Your task to perform on an android device: star an email in the gmail app Image 0: 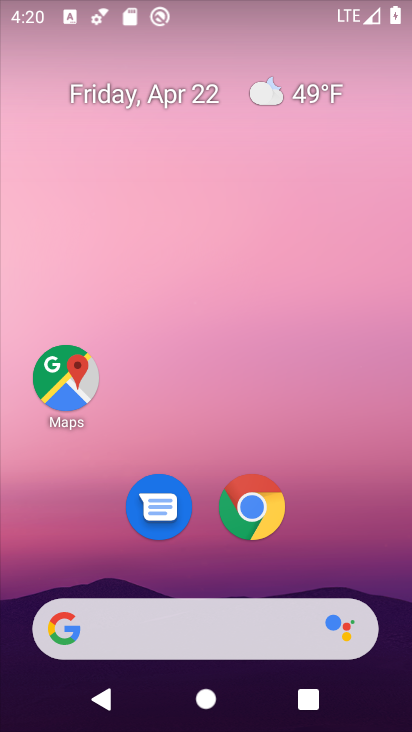
Step 0: drag from (385, 578) to (309, 10)
Your task to perform on an android device: star an email in the gmail app Image 1: 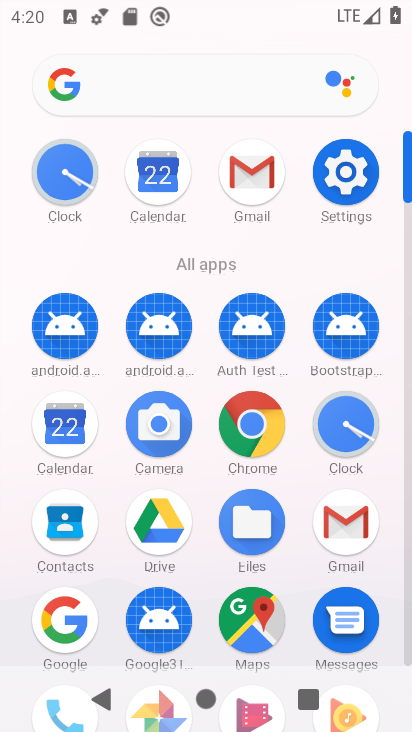
Step 1: click (408, 653)
Your task to perform on an android device: star an email in the gmail app Image 2: 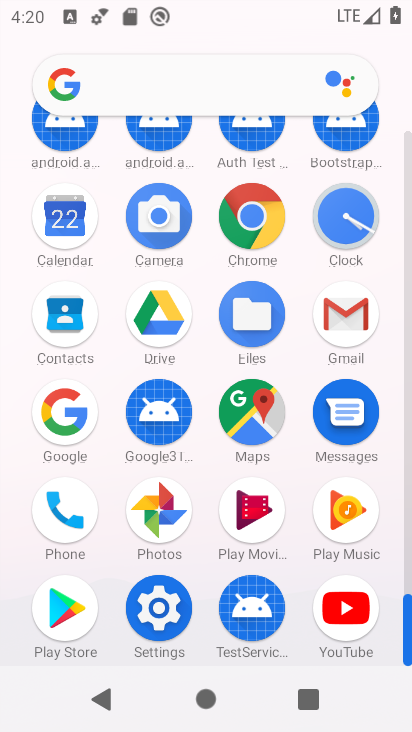
Step 2: click (343, 307)
Your task to perform on an android device: star an email in the gmail app Image 3: 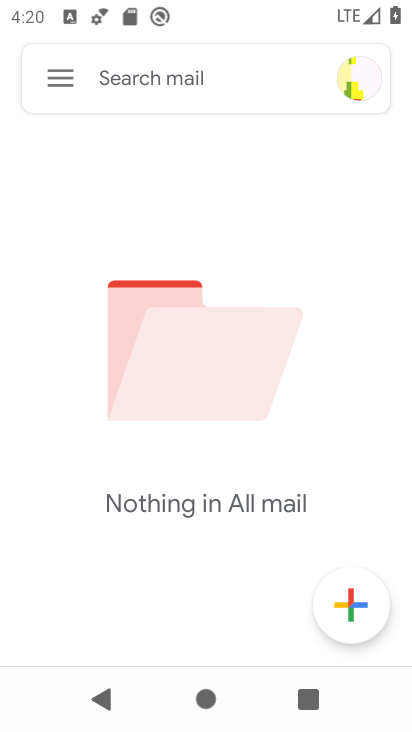
Step 3: click (49, 73)
Your task to perform on an android device: star an email in the gmail app Image 4: 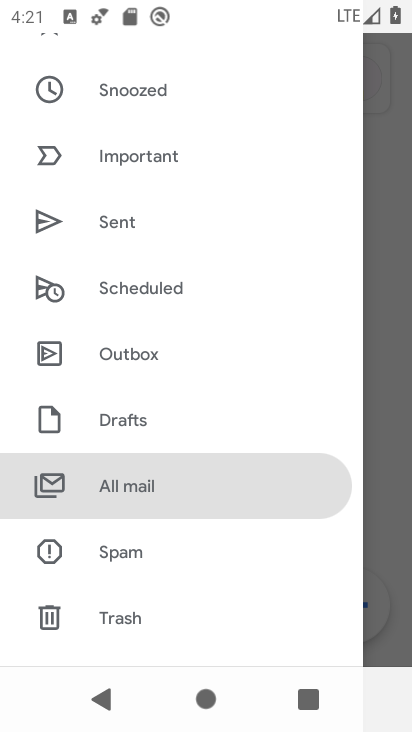
Step 4: click (162, 502)
Your task to perform on an android device: star an email in the gmail app Image 5: 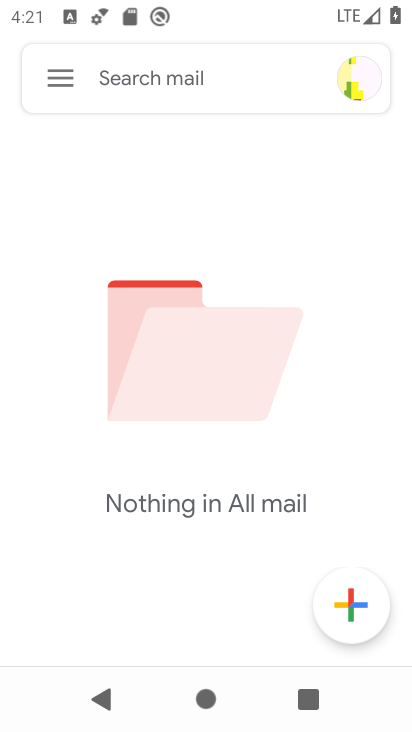
Step 5: task complete